Your task to perform on an android device: Open the stopwatch Image 0: 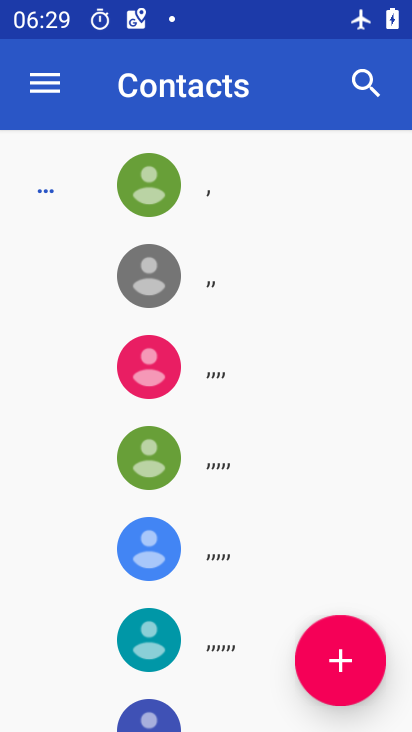
Step 0: press home button
Your task to perform on an android device: Open the stopwatch Image 1: 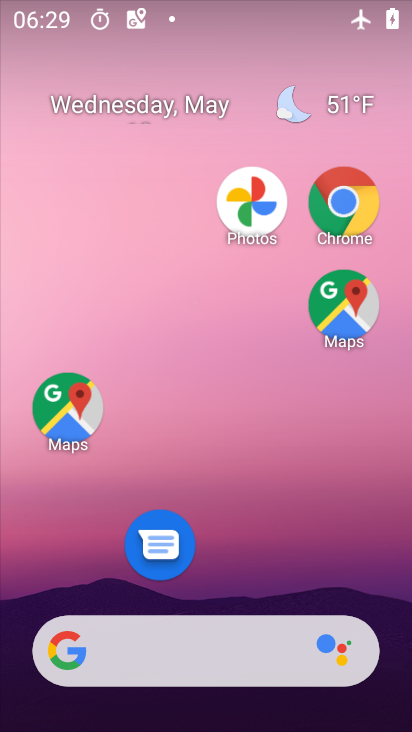
Step 1: drag from (266, 411) to (262, 143)
Your task to perform on an android device: Open the stopwatch Image 2: 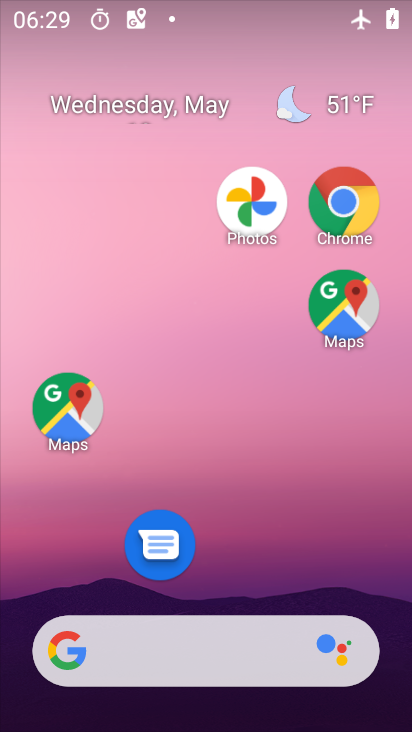
Step 2: drag from (218, 545) to (217, 19)
Your task to perform on an android device: Open the stopwatch Image 3: 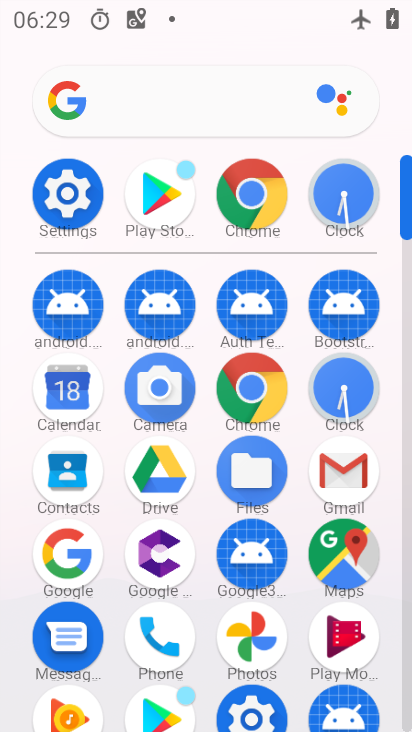
Step 3: click (344, 410)
Your task to perform on an android device: Open the stopwatch Image 4: 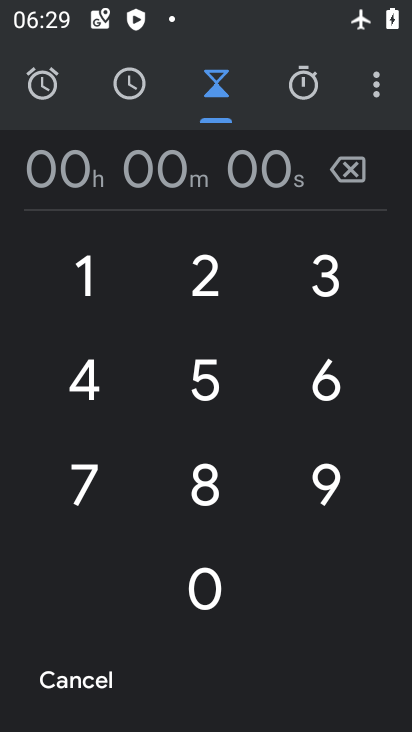
Step 4: click (301, 97)
Your task to perform on an android device: Open the stopwatch Image 5: 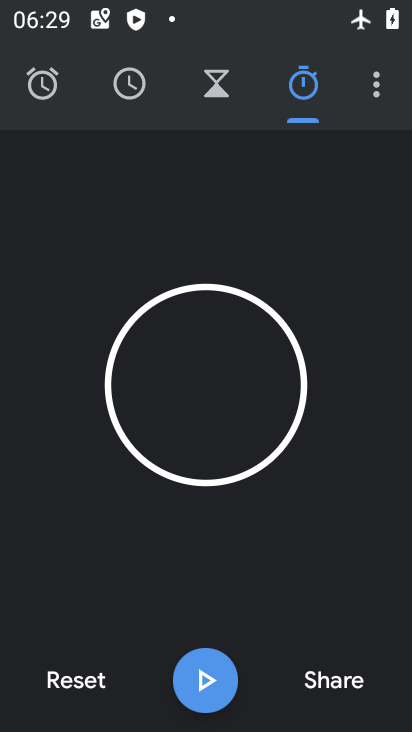
Step 5: task complete